Your task to perform on an android device: Go to Yahoo.com Image 0: 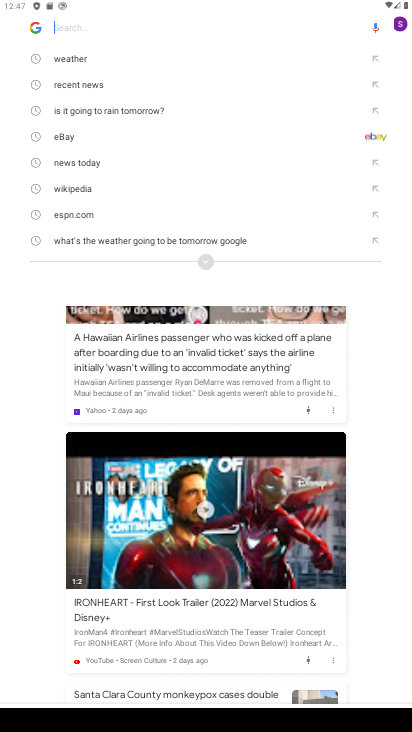
Step 0: press home button
Your task to perform on an android device: Go to Yahoo.com Image 1: 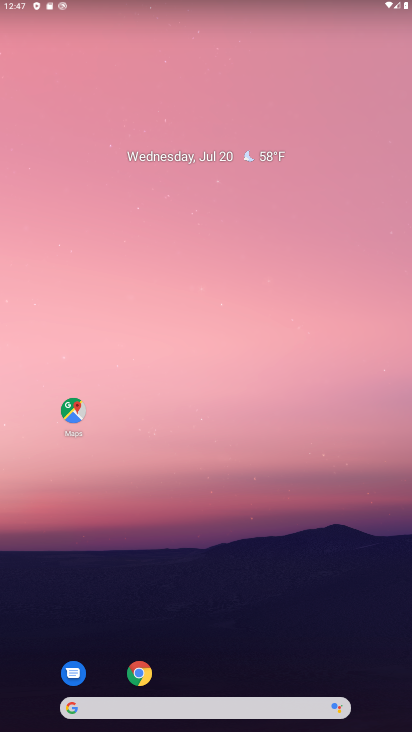
Step 1: click (140, 669)
Your task to perform on an android device: Go to Yahoo.com Image 2: 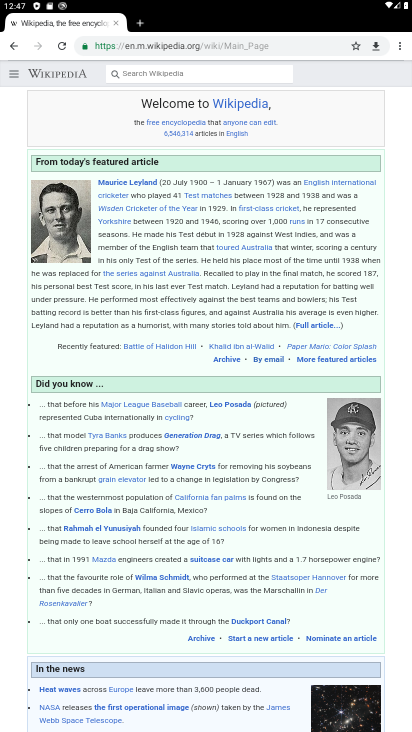
Step 2: click (265, 45)
Your task to perform on an android device: Go to Yahoo.com Image 3: 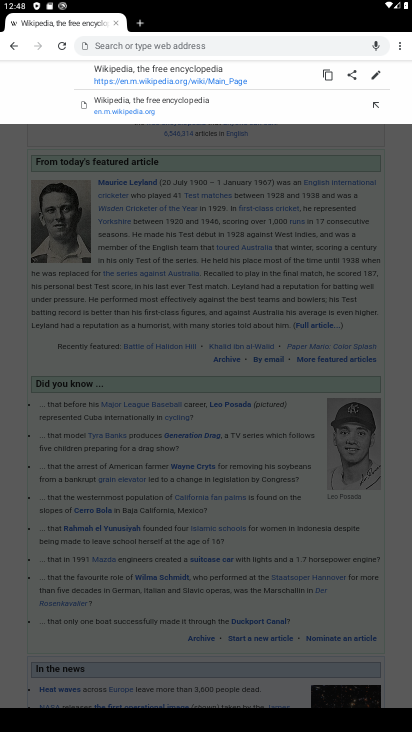
Step 3: type "yahoo.com"
Your task to perform on an android device: Go to Yahoo.com Image 4: 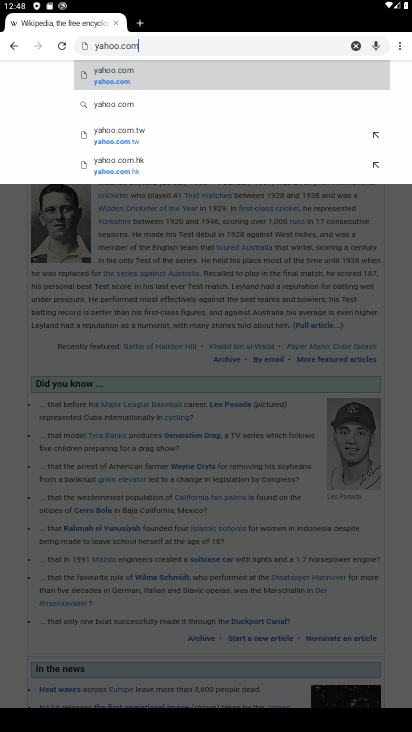
Step 4: click (216, 65)
Your task to perform on an android device: Go to Yahoo.com Image 5: 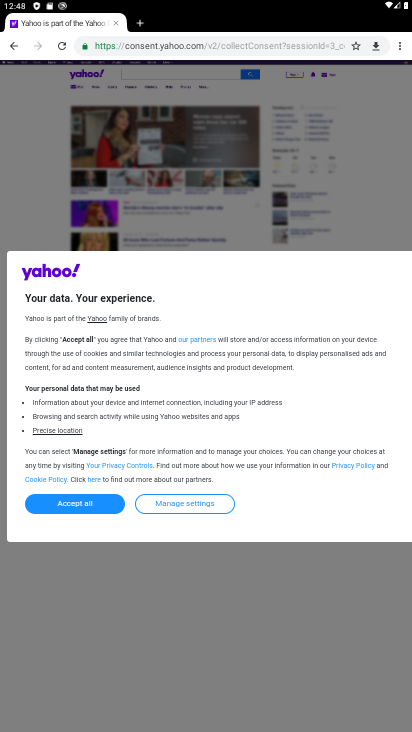
Step 5: task complete